Your task to perform on an android device: Search for vegetarian restaurants on Maps Image 0: 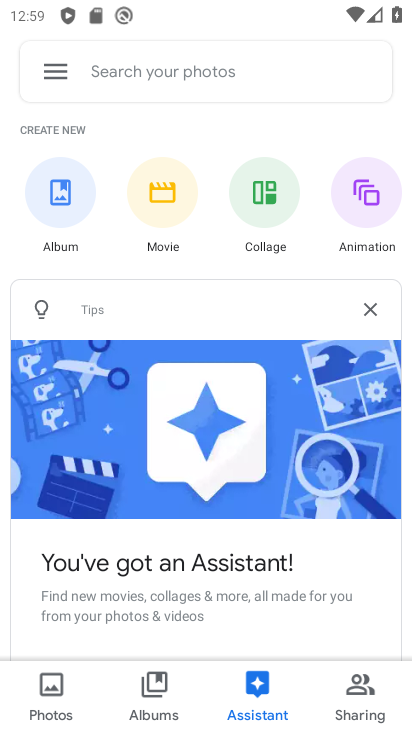
Step 0: press home button
Your task to perform on an android device: Search for vegetarian restaurants on Maps Image 1: 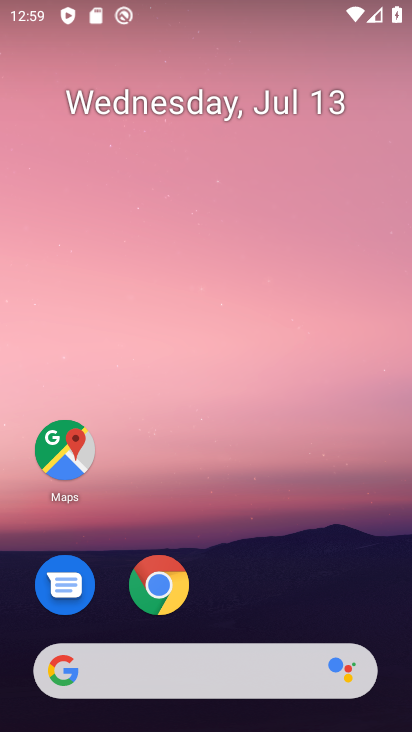
Step 1: click (63, 455)
Your task to perform on an android device: Search for vegetarian restaurants on Maps Image 2: 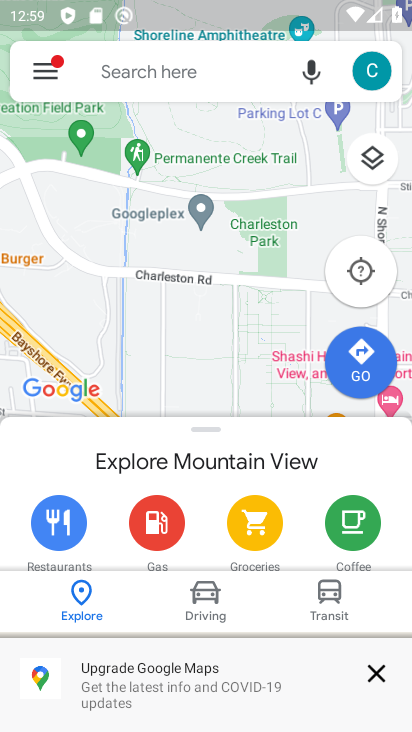
Step 2: click (179, 72)
Your task to perform on an android device: Search for vegetarian restaurants on Maps Image 3: 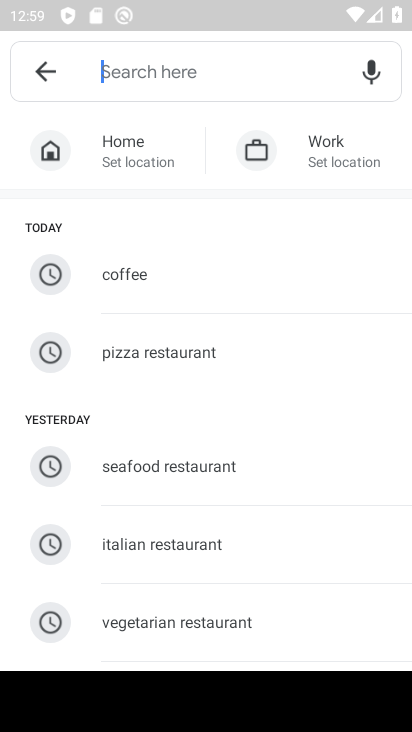
Step 3: click (147, 628)
Your task to perform on an android device: Search for vegetarian restaurants on Maps Image 4: 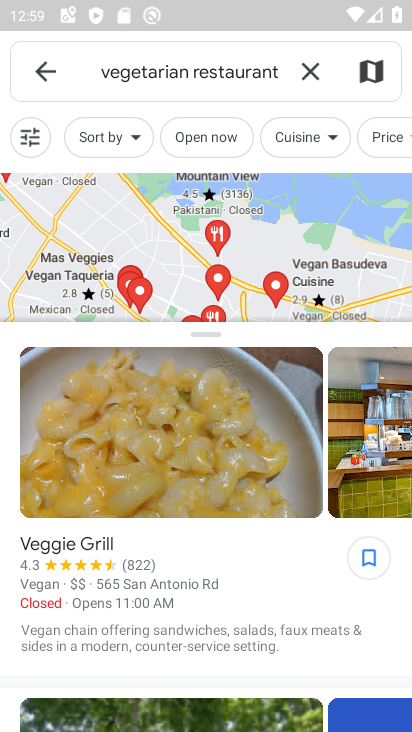
Step 4: task complete